Your task to perform on an android device: Open the stopwatch Image 0: 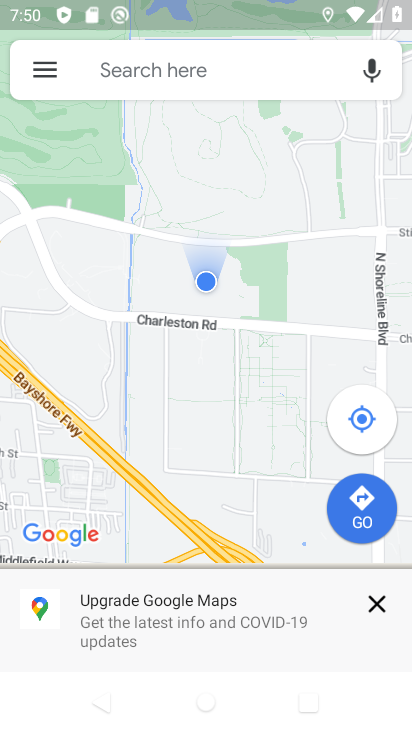
Step 0: press home button
Your task to perform on an android device: Open the stopwatch Image 1: 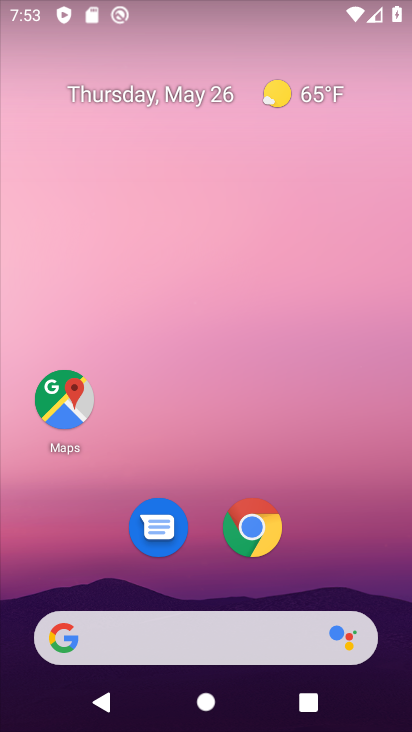
Step 1: drag from (338, 595) to (410, 355)
Your task to perform on an android device: Open the stopwatch Image 2: 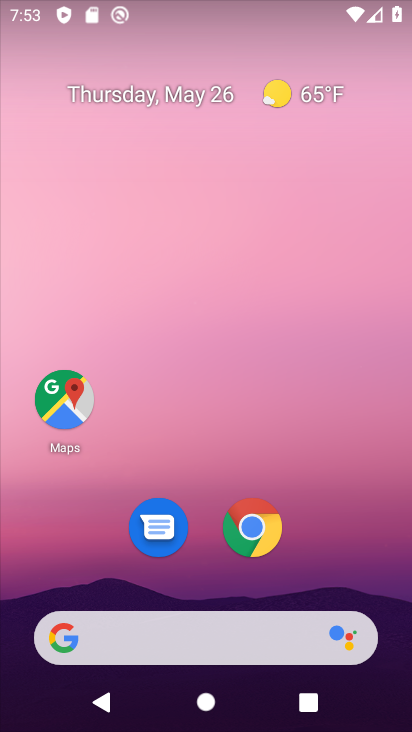
Step 2: click (350, 415)
Your task to perform on an android device: Open the stopwatch Image 3: 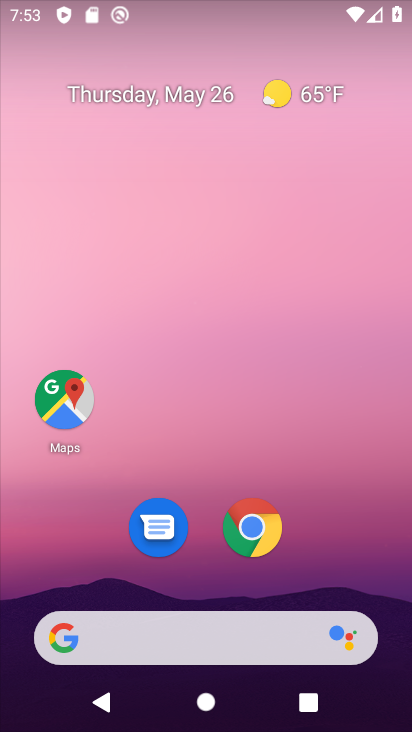
Step 3: drag from (336, 545) to (334, 69)
Your task to perform on an android device: Open the stopwatch Image 4: 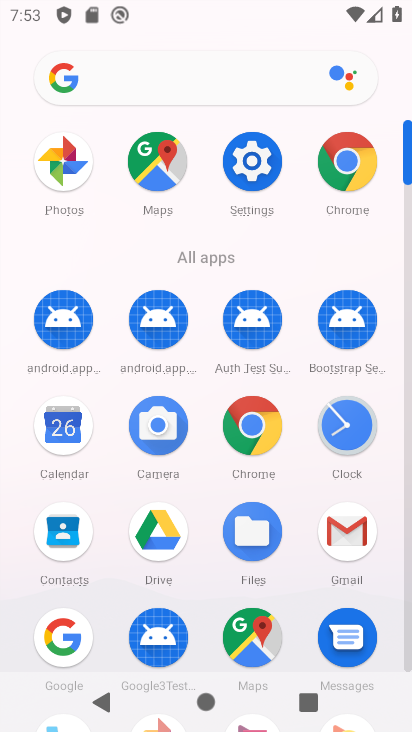
Step 4: click (347, 424)
Your task to perform on an android device: Open the stopwatch Image 5: 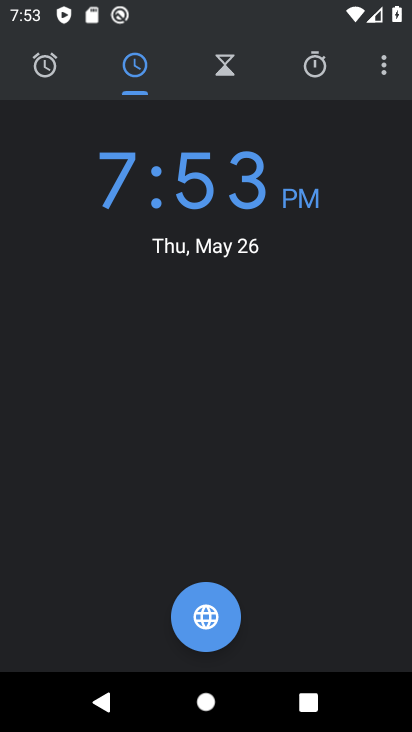
Step 5: click (327, 72)
Your task to perform on an android device: Open the stopwatch Image 6: 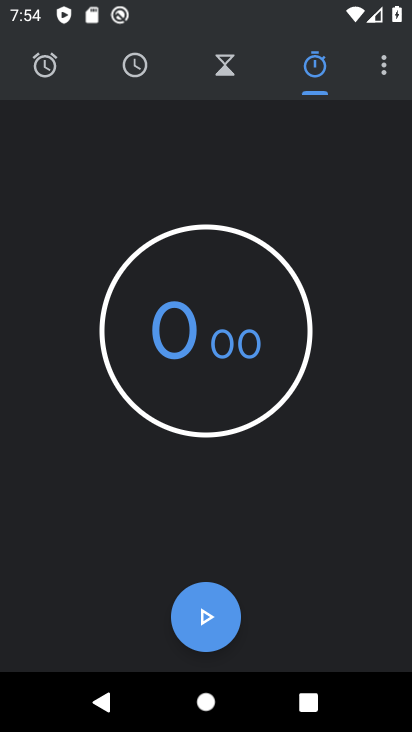
Step 6: task complete